Your task to perform on an android device: Turn on the flashlight Image 0: 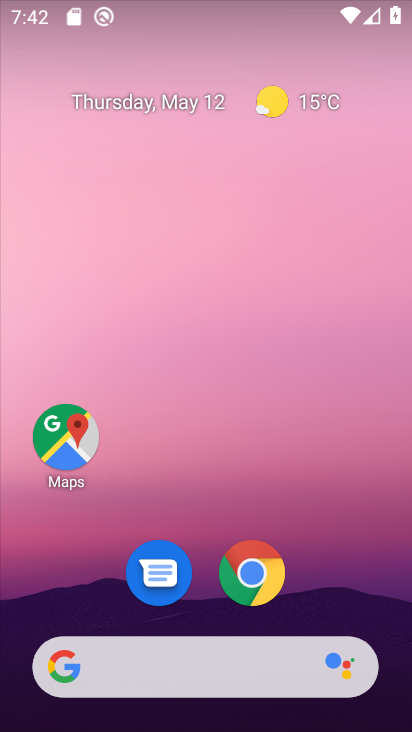
Step 0: drag from (256, 494) to (197, 54)
Your task to perform on an android device: Turn on the flashlight Image 1: 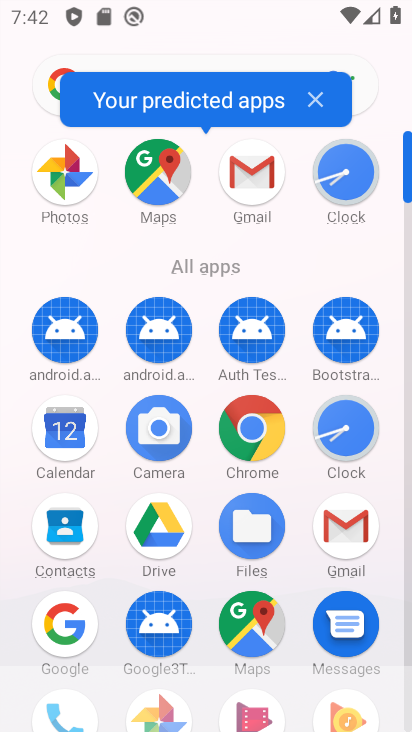
Step 1: drag from (216, 404) to (188, 178)
Your task to perform on an android device: Turn on the flashlight Image 2: 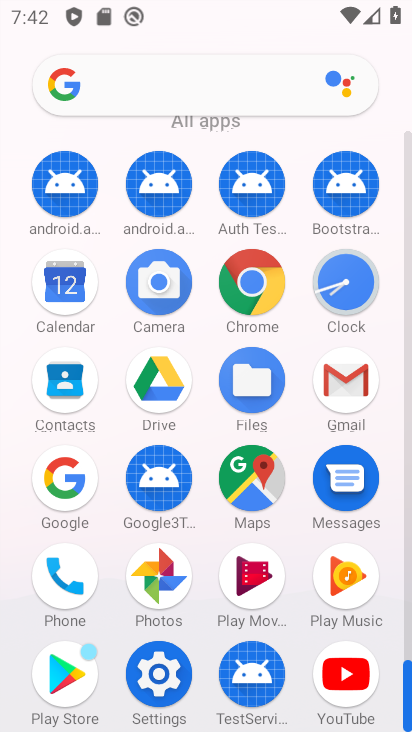
Step 2: click (172, 669)
Your task to perform on an android device: Turn on the flashlight Image 3: 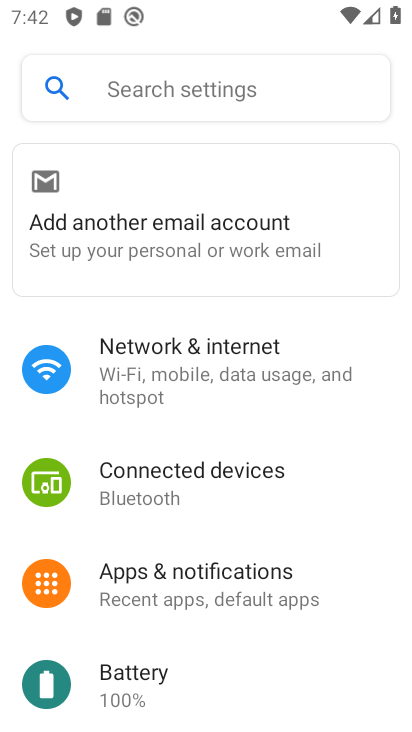
Step 3: click (261, 85)
Your task to perform on an android device: Turn on the flashlight Image 4: 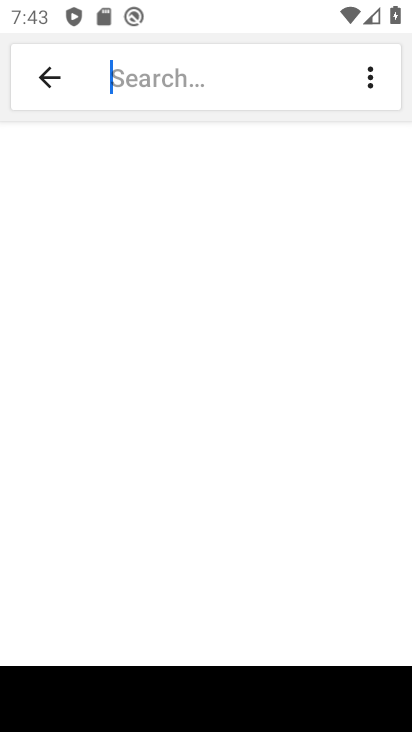
Step 4: type "Flashlight"
Your task to perform on an android device: Turn on the flashlight Image 5: 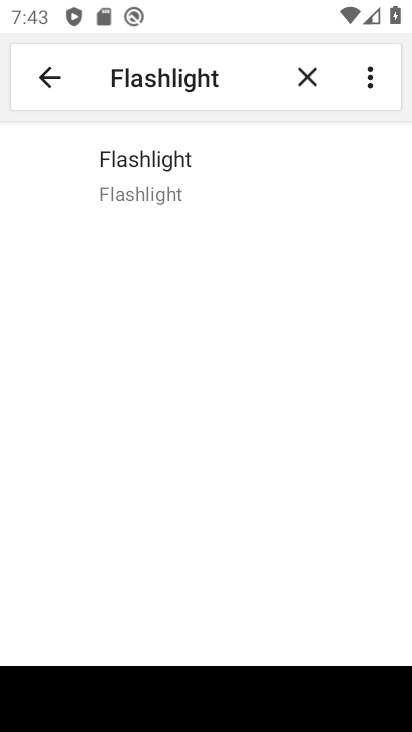
Step 5: click (151, 196)
Your task to perform on an android device: Turn on the flashlight Image 6: 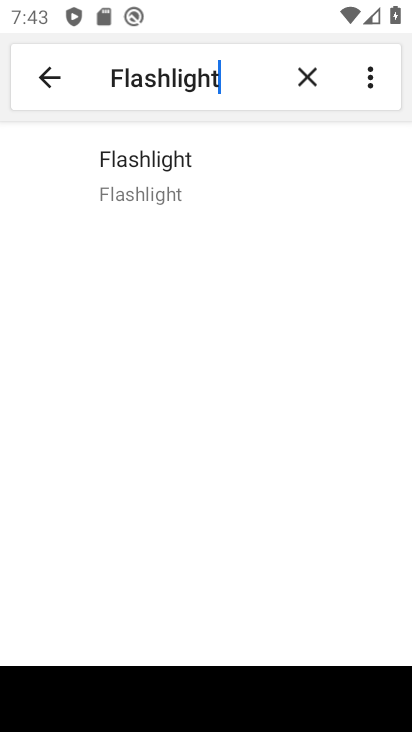
Step 6: task complete